Your task to perform on an android device: Search for Mexican restaurants on Maps Image 0: 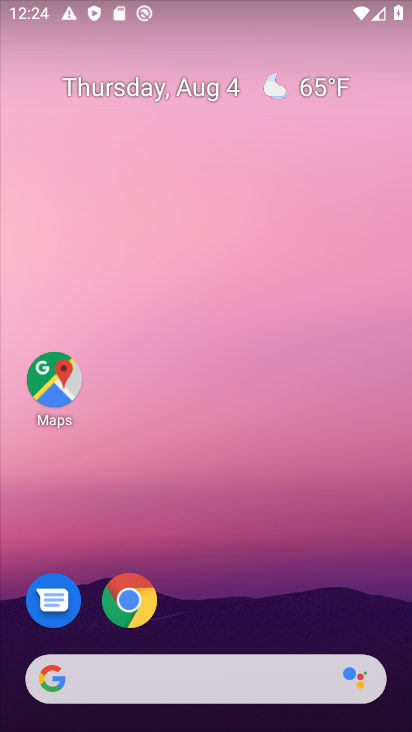
Step 0: click (61, 400)
Your task to perform on an android device: Search for Mexican restaurants on Maps Image 1: 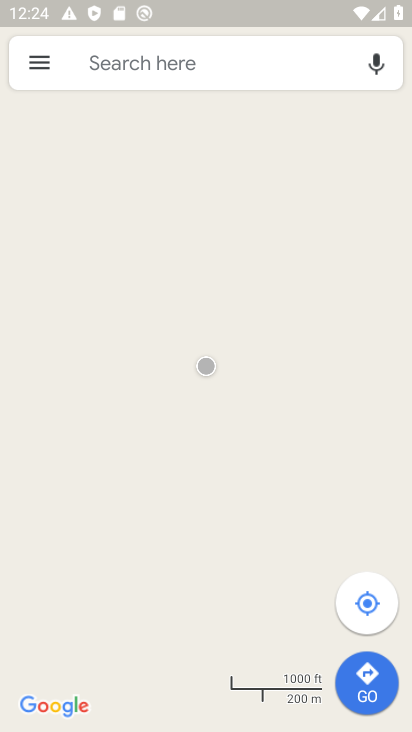
Step 1: click (204, 60)
Your task to perform on an android device: Search for Mexican restaurants on Maps Image 2: 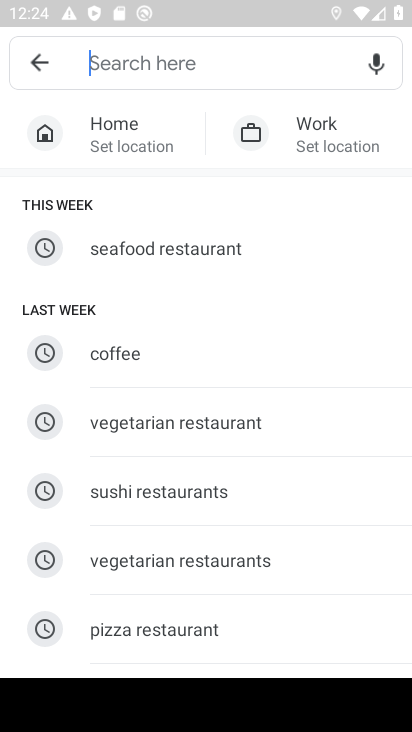
Step 2: type "Mexican restaurants"
Your task to perform on an android device: Search for Mexican restaurants on Maps Image 3: 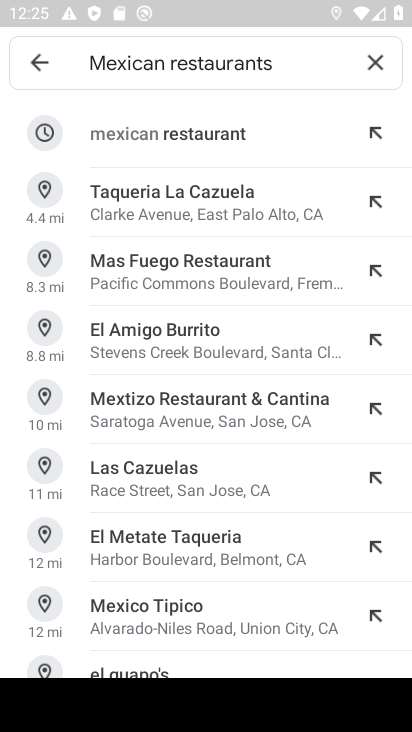
Step 3: click (88, 118)
Your task to perform on an android device: Search for Mexican restaurants on Maps Image 4: 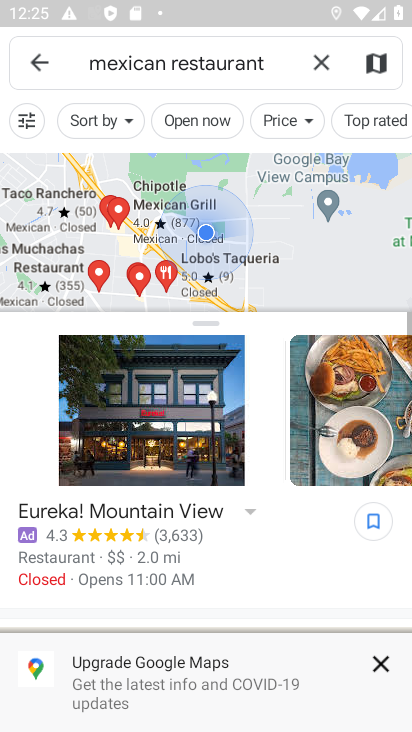
Step 4: task complete